Your task to perform on an android device: create a new album in the google photos Image 0: 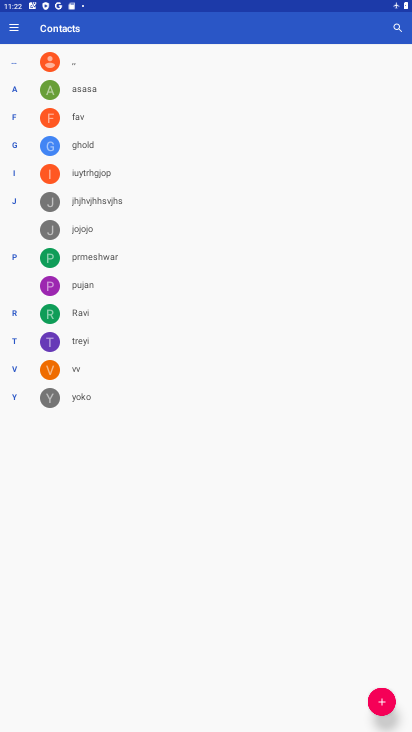
Step 0: press home button
Your task to perform on an android device: create a new album in the google photos Image 1: 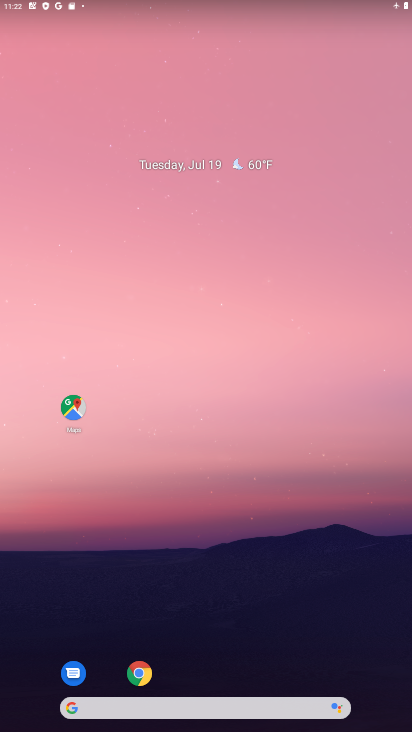
Step 1: drag from (376, 677) to (313, 152)
Your task to perform on an android device: create a new album in the google photos Image 2: 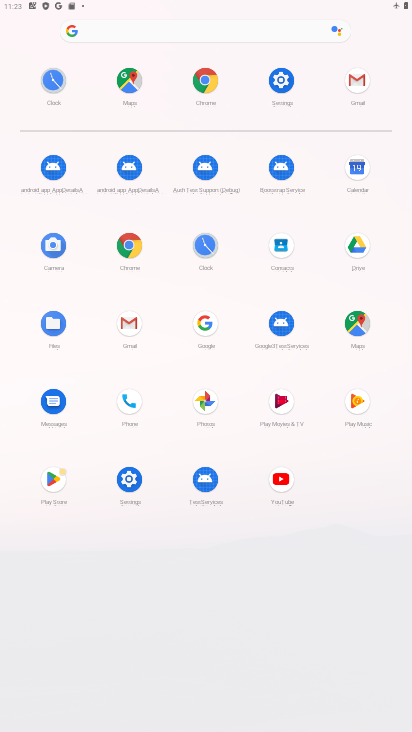
Step 2: click (203, 399)
Your task to perform on an android device: create a new album in the google photos Image 3: 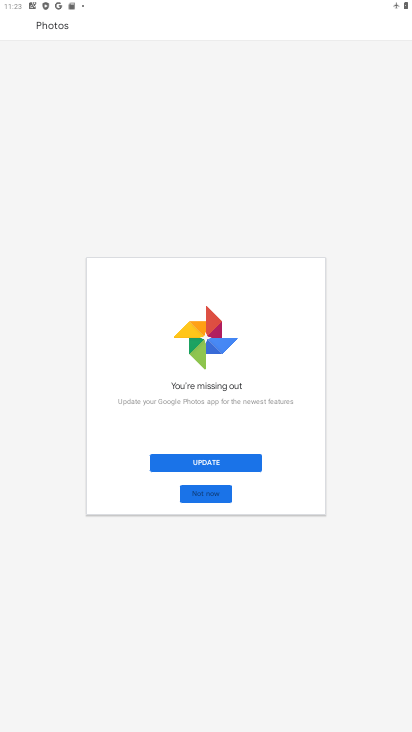
Step 3: click (202, 466)
Your task to perform on an android device: create a new album in the google photos Image 4: 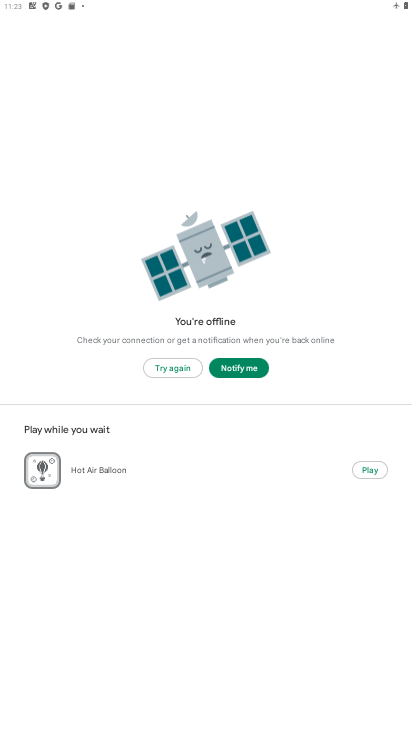
Step 4: click (167, 363)
Your task to perform on an android device: create a new album in the google photos Image 5: 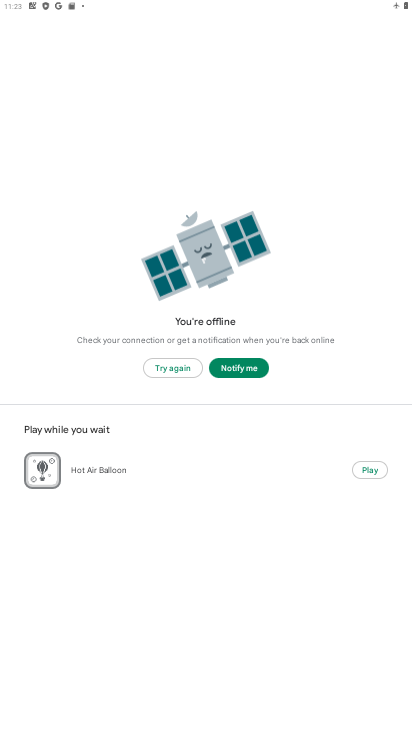
Step 5: task complete